Your task to perform on an android device: What is the news today? Image 0: 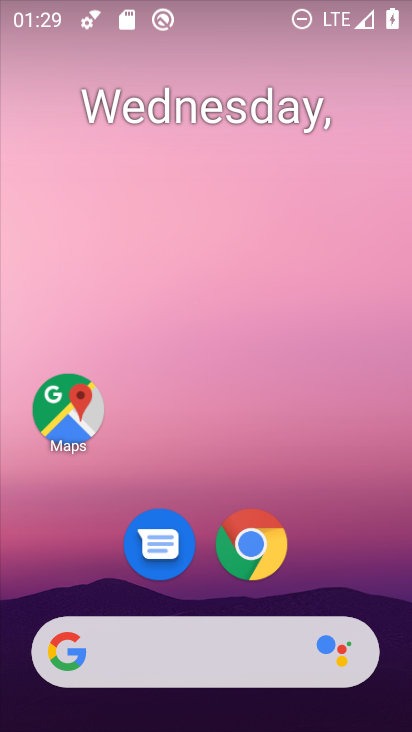
Step 0: click (207, 644)
Your task to perform on an android device: What is the news today? Image 1: 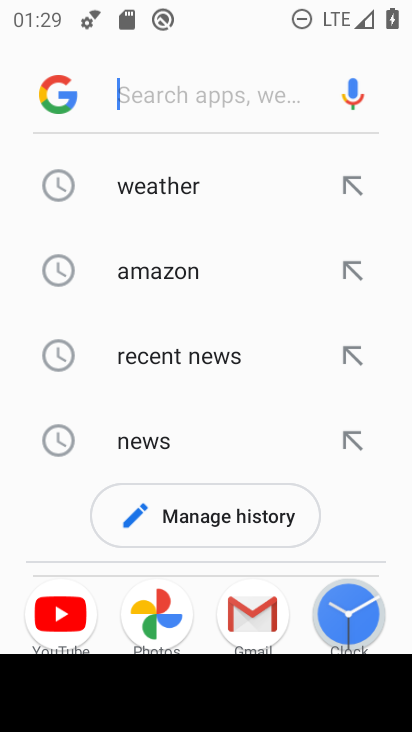
Step 1: type "what is the news today"
Your task to perform on an android device: What is the news today? Image 2: 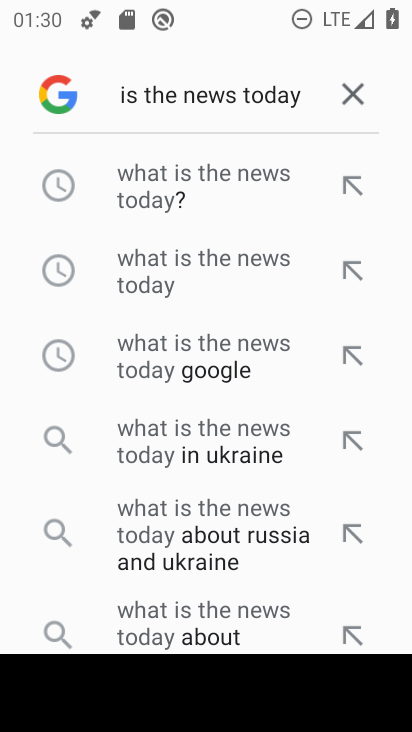
Step 2: click (196, 179)
Your task to perform on an android device: What is the news today? Image 3: 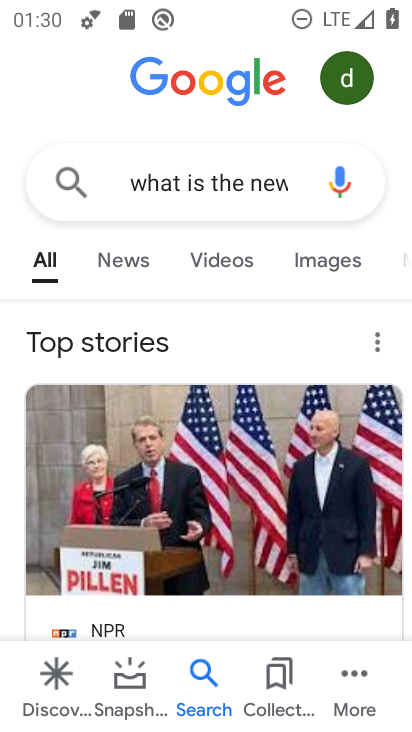
Step 3: click (146, 268)
Your task to perform on an android device: What is the news today? Image 4: 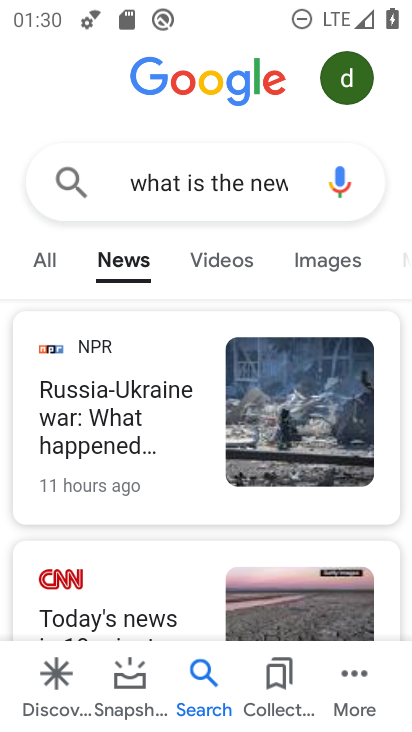
Step 4: task complete